Your task to perform on an android device: turn smart compose on in the gmail app Image 0: 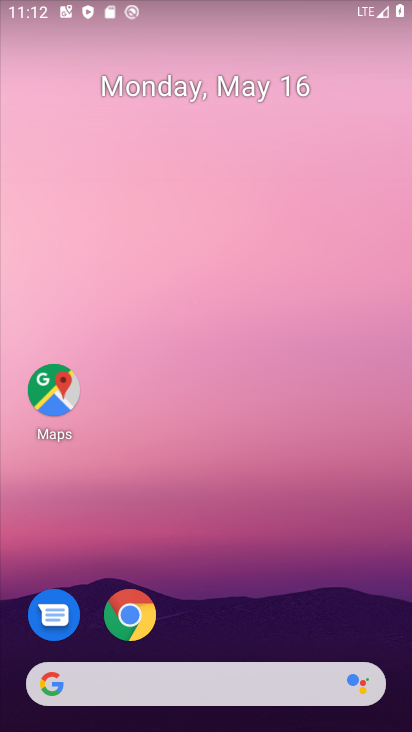
Step 0: drag from (219, 556) to (240, 159)
Your task to perform on an android device: turn smart compose on in the gmail app Image 1: 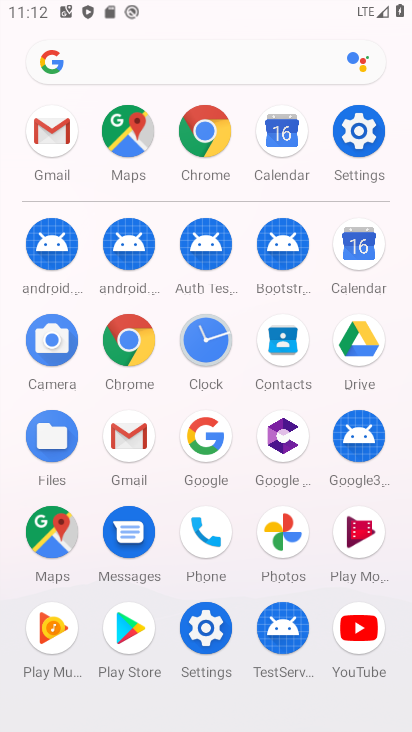
Step 1: drag from (243, 519) to (264, 273)
Your task to perform on an android device: turn smart compose on in the gmail app Image 2: 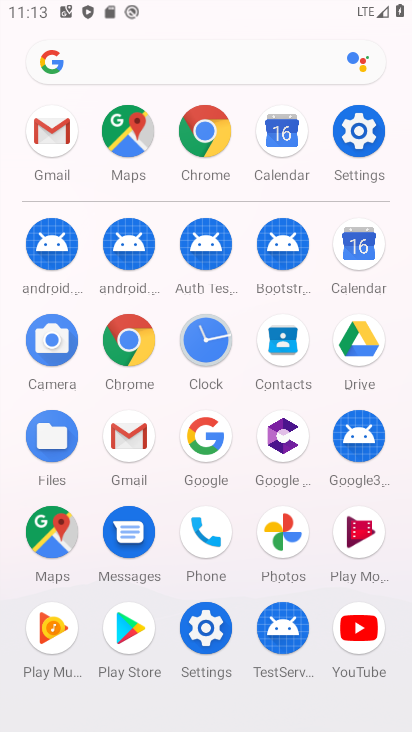
Step 2: click (123, 435)
Your task to perform on an android device: turn smart compose on in the gmail app Image 3: 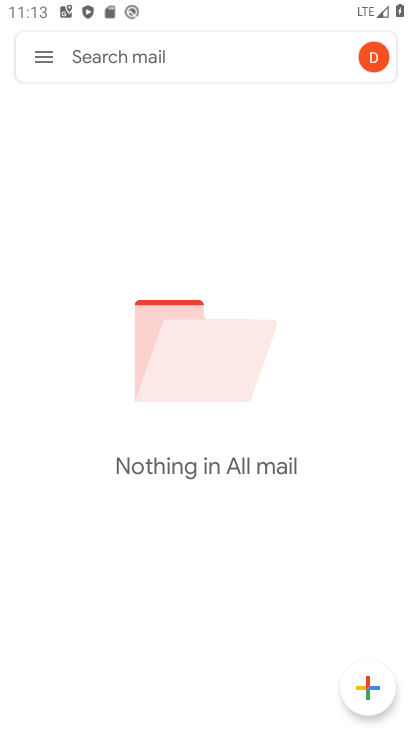
Step 3: click (48, 64)
Your task to perform on an android device: turn smart compose on in the gmail app Image 4: 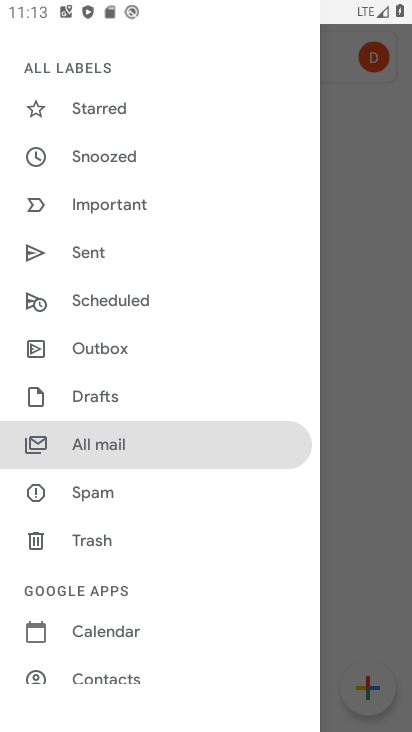
Step 4: drag from (126, 503) to (176, 85)
Your task to perform on an android device: turn smart compose on in the gmail app Image 5: 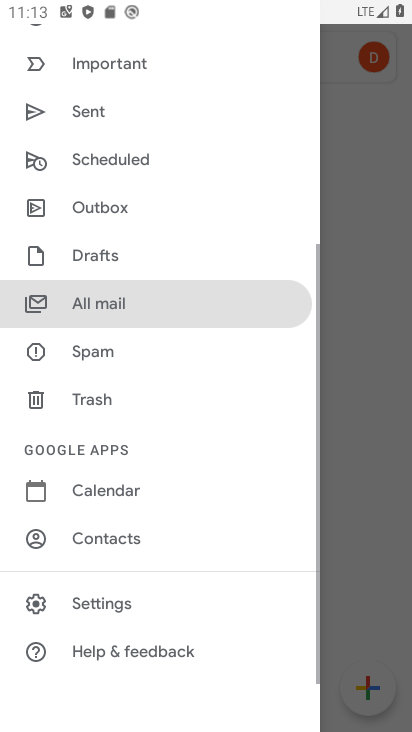
Step 5: click (123, 612)
Your task to perform on an android device: turn smart compose on in the gmail app Image 6: 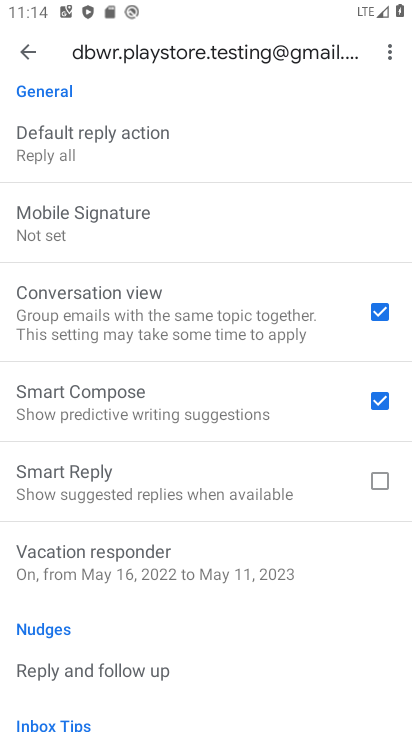
Step 6: task complete